Your task to perform on an android device: turn notification dots off Image 0: 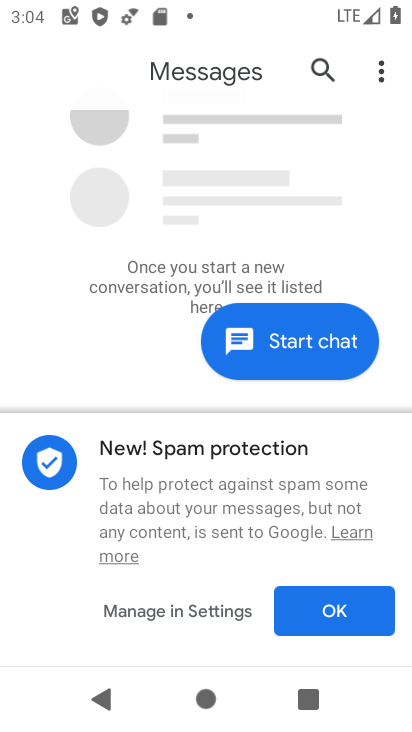
Step 0: press home button
Your task to perform on an android device: turn notification dots off Image 1: 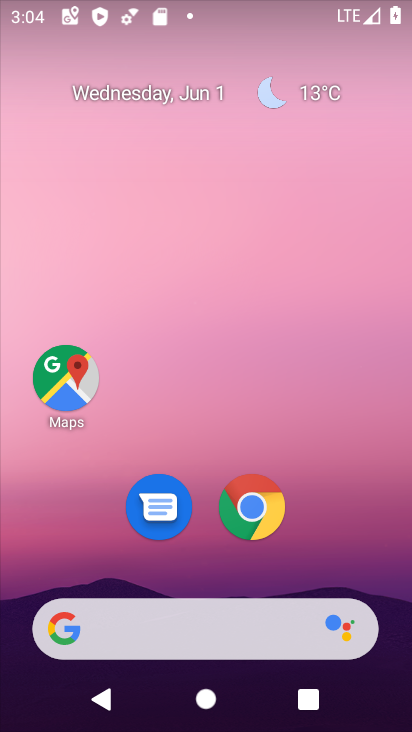
Step 1: drag from (339, 514) to (163, 58)
Your task to perform on an android device: turn notification dots off Image 2: 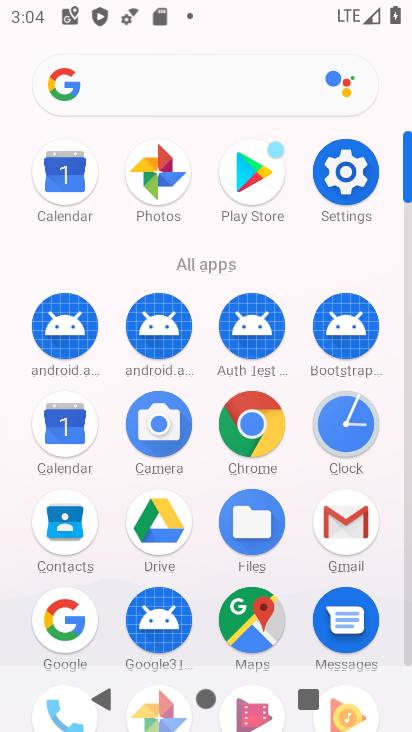
Step 2: click (350, 176)
Your task to perform on an android device: turn notification dots off Image 3: 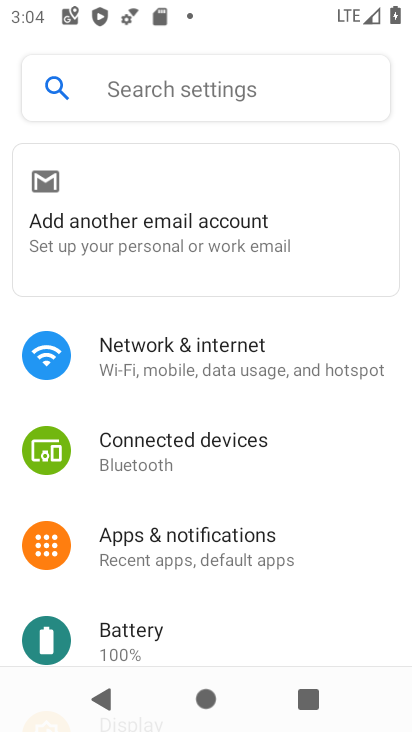
Step 3: click (236, 551)
Your task to perform on an android device: turn notification dots off Image 4: 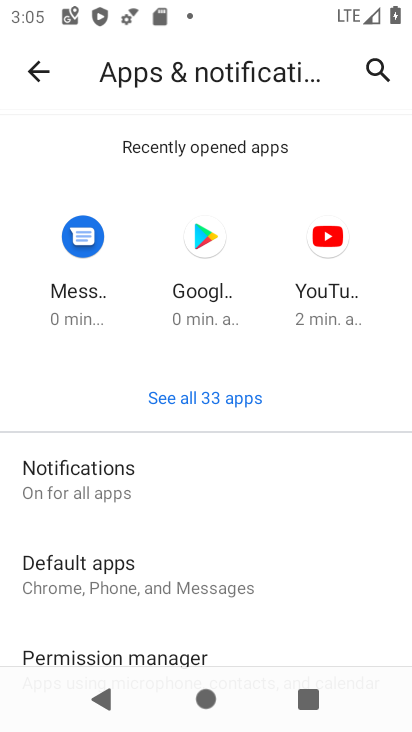
Step 4: click (123, 497)
Your task to perform on an android device: turn notification dots off Image 5: 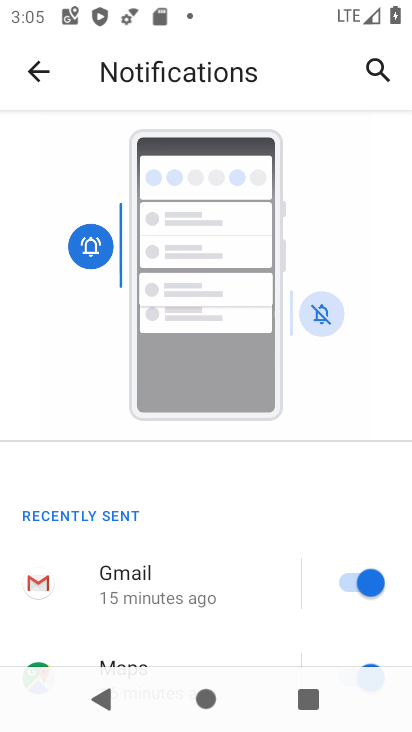
Step 5: drag from (134, 599) to (184, 82)
Your task to perform on an android device: turn notification dots off Image 6: 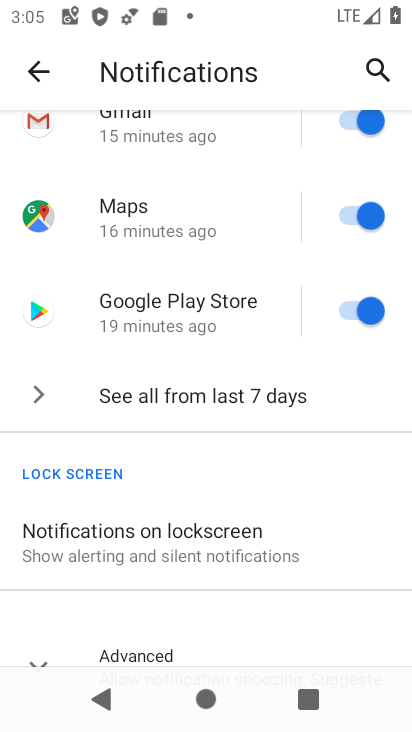
Step 6: drag from (227, 576) to (254, 228)
Your task to perform on an android device: turn notification dots off Image 7: 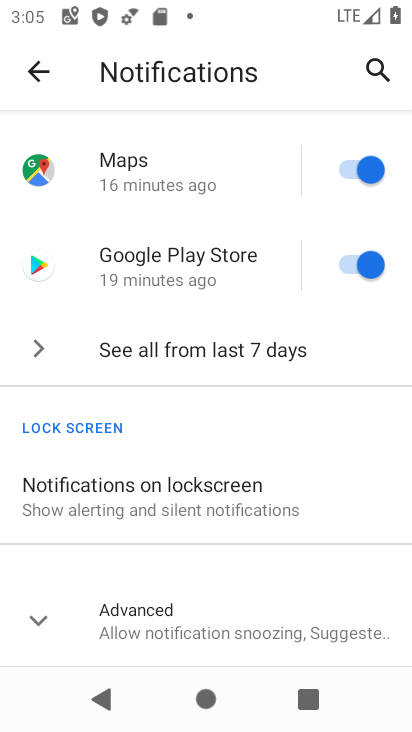
Step 7: click (163, 616)
Your task to perform on an android device: turn notification dots off Image 8: 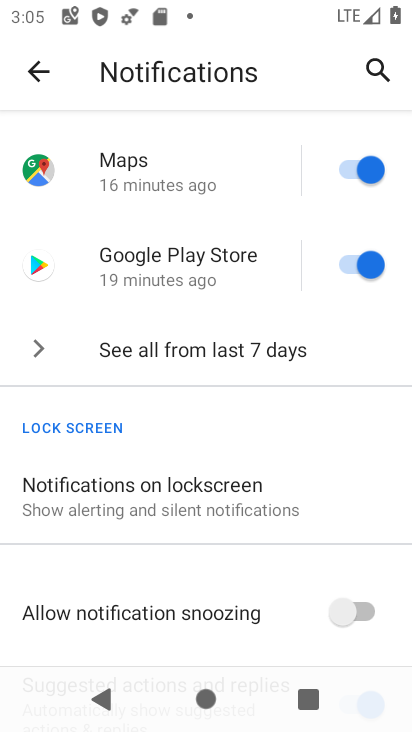
Step 8: drag from (162, 594) to (185, 318)
Your task to perform on an android device: turn notification dots off Image 9: 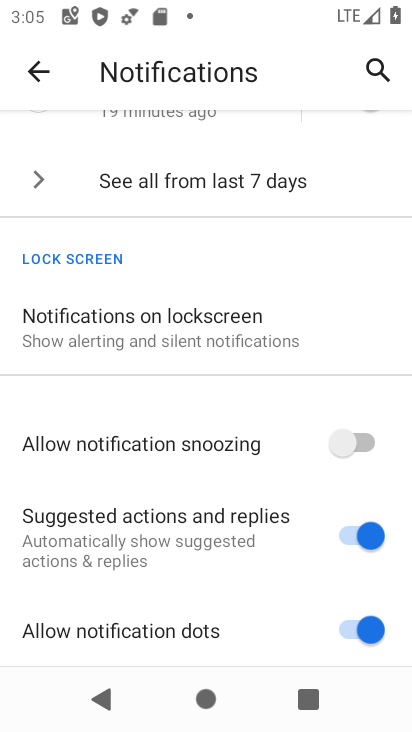
Step 9: click (372, 640)
Your task to perform on an android device: turn notification dots off Image 10: 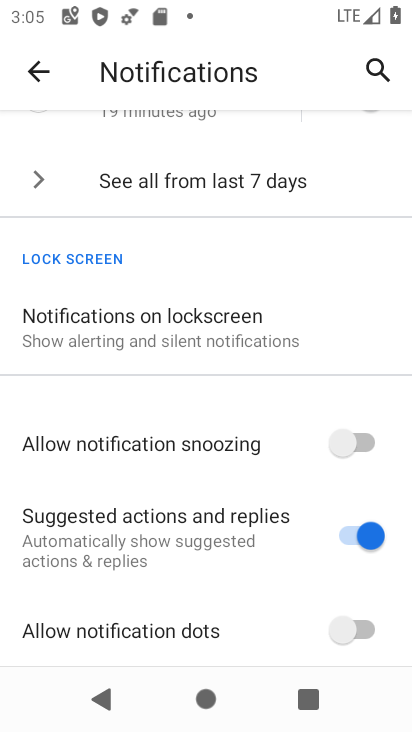
Step 10: task complete